Your task to perform on an android device: Find coffee shops on Maps Image 0: 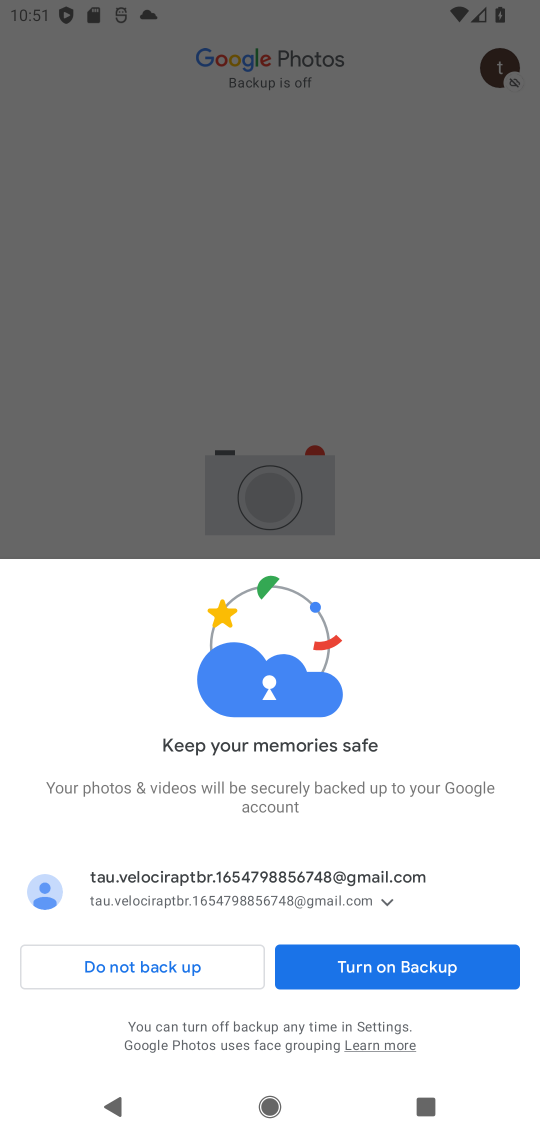
Step 0: press home button
Your task to perform on an android device: Find coffee shops on Maps Image 1: 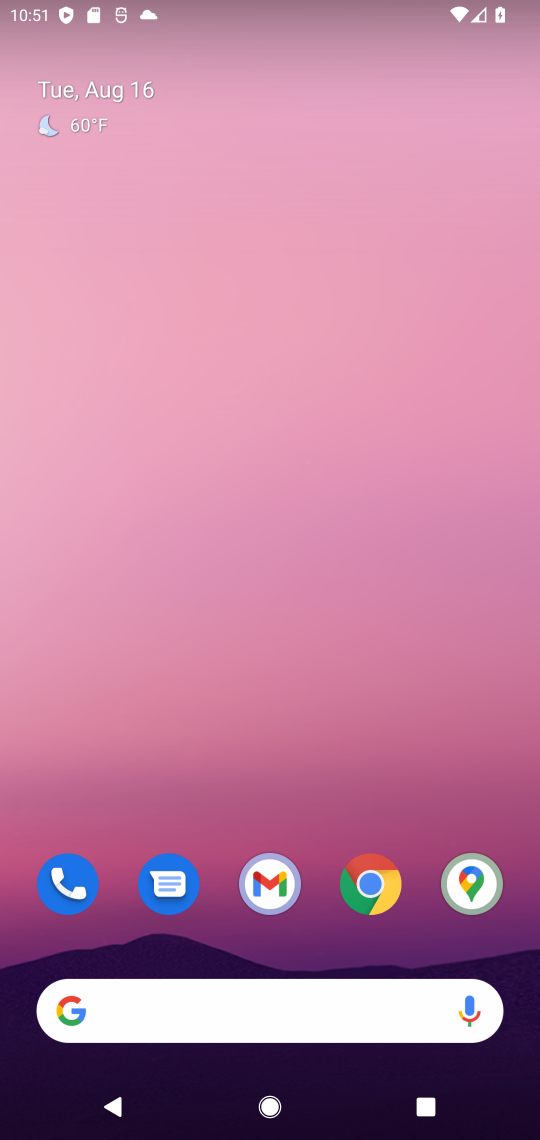
Step 1: press home button
Your task to perform on an android device: Find coffee shops on Maps Image 2: 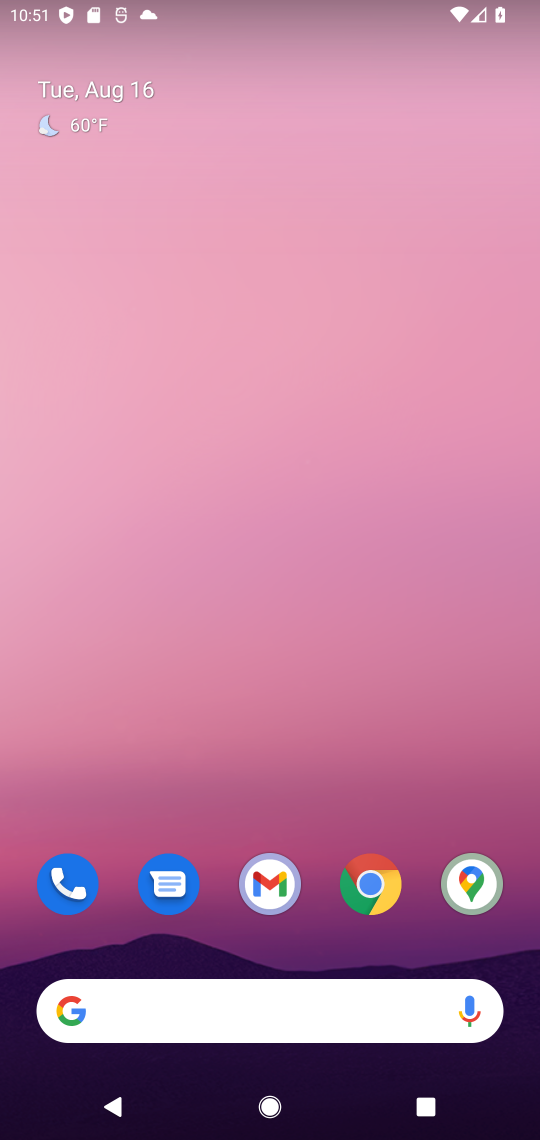
Step 2: click (465, 886)
Your task to perform on an android device: Find coffee shops on Maps Image 3: 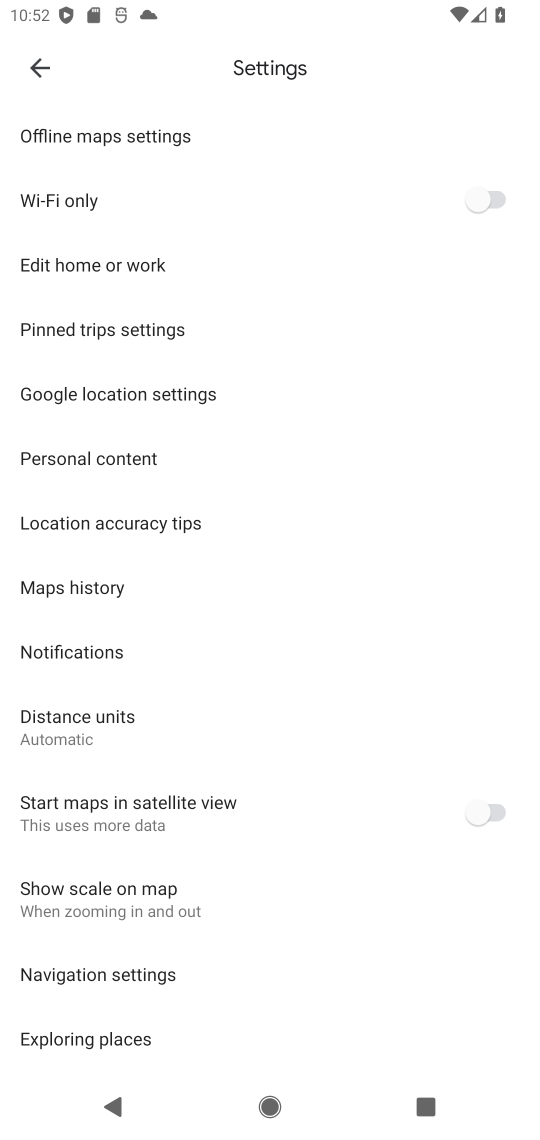
Step 3: press home button
Your task to perform on an android device: Find coffee shops on Maps Image 4: 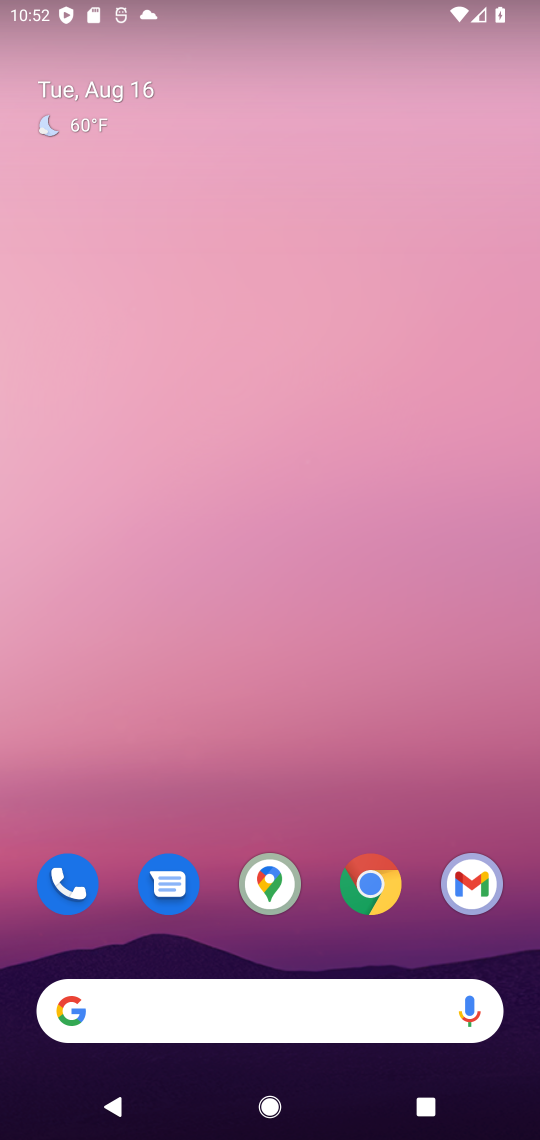
Step 4: click (255, 879)
Your task to perform on an android device: Find coffee shops on Maps Image 5: 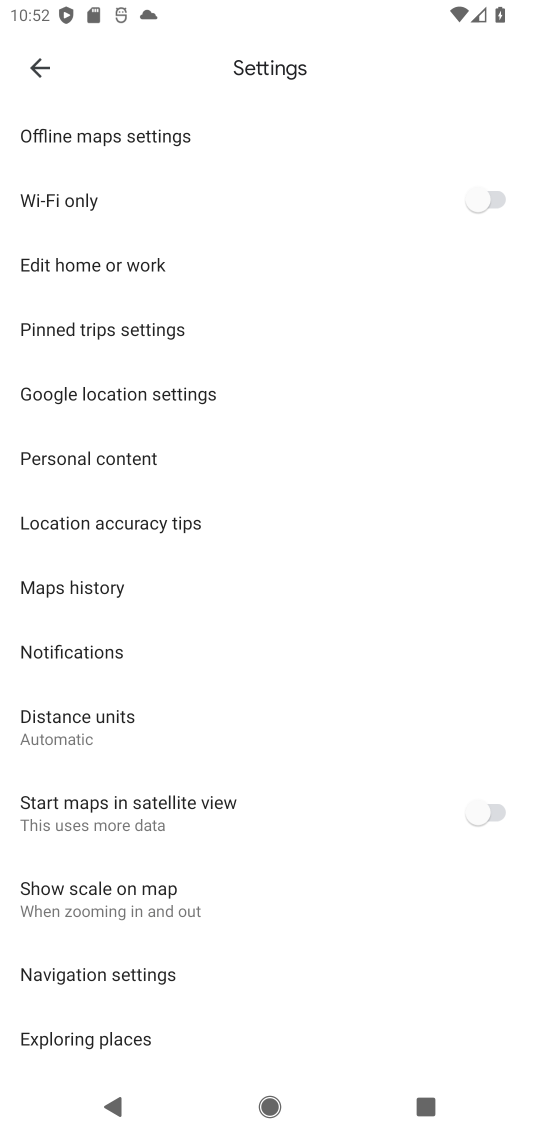
Step 5: click (33, 75)
Your task to perform on an android device: Find coffee shops on Maps Image 6: 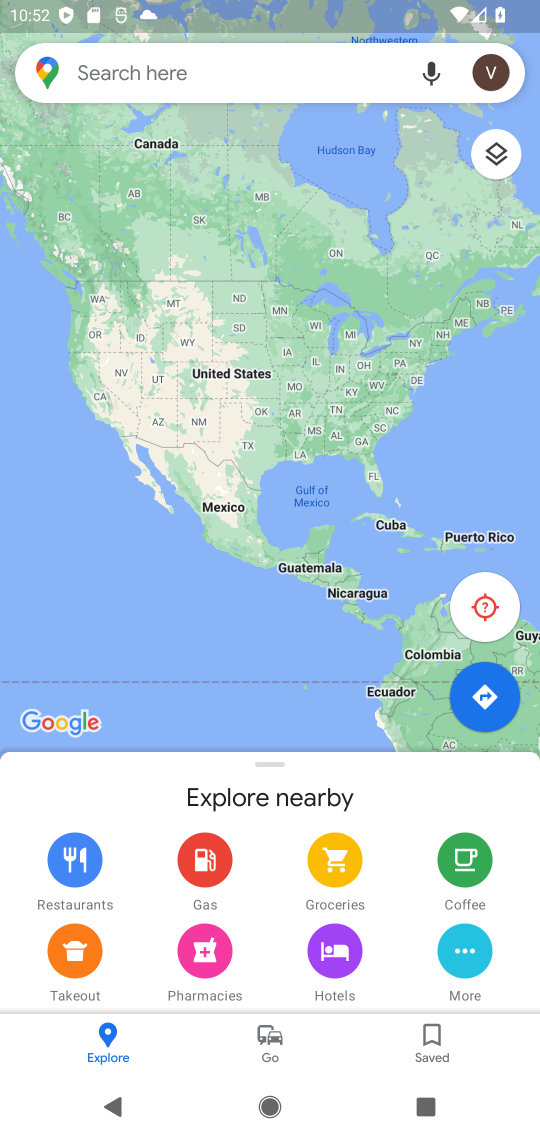
Step 6: click (165, 77)
Your task to perform on an android device: Find coffee shops on Maps Image 7: 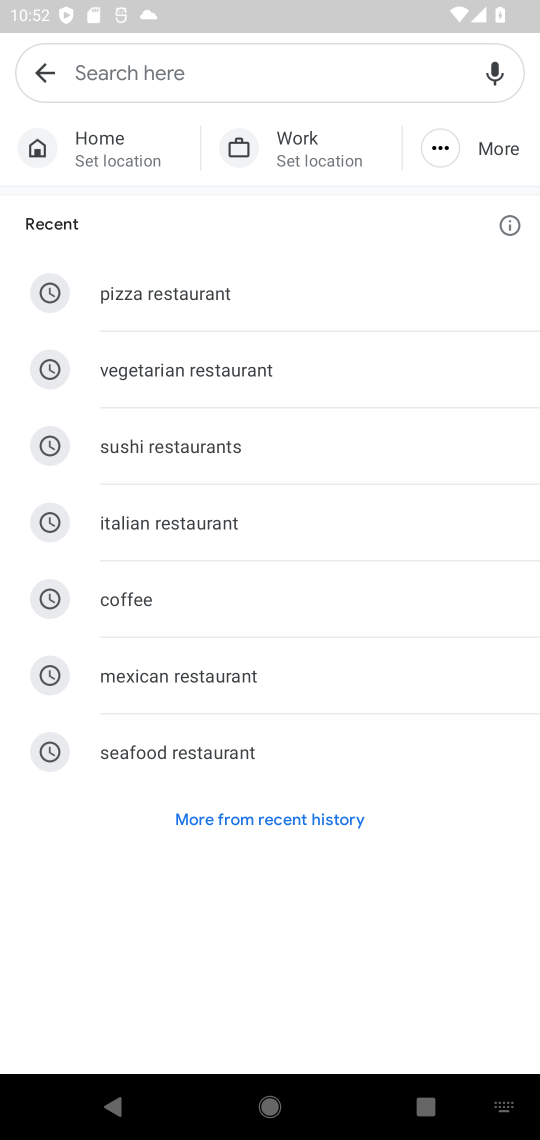
Step 7: type "coffee shops"
Your task to perform on an android device: Find coffee shops on Maps Image 8: 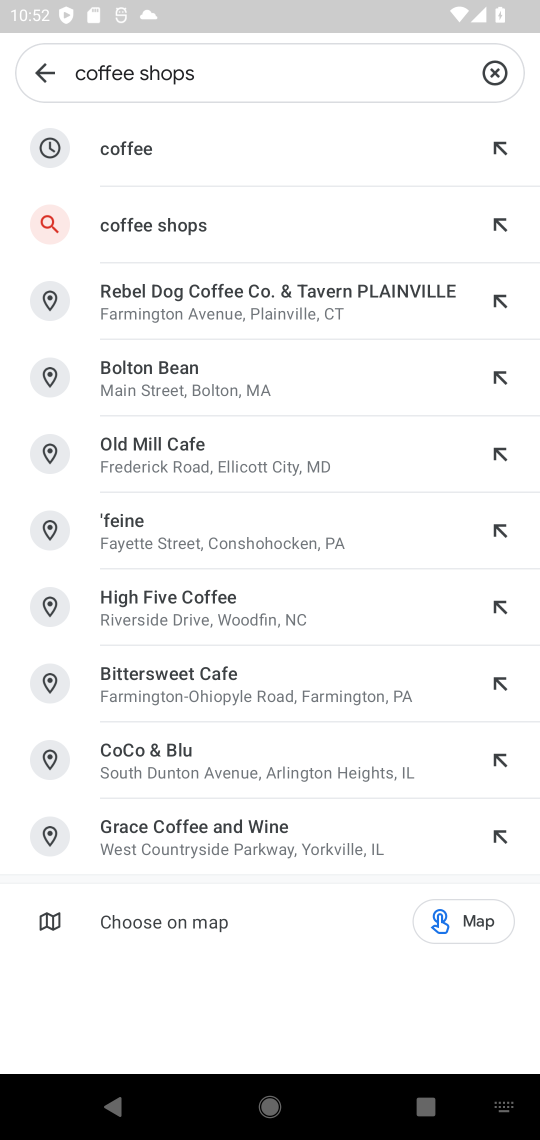
Step 8: click (185, 236)
Your task to perform on an android device: Find coffee shops on Maps Image 9: 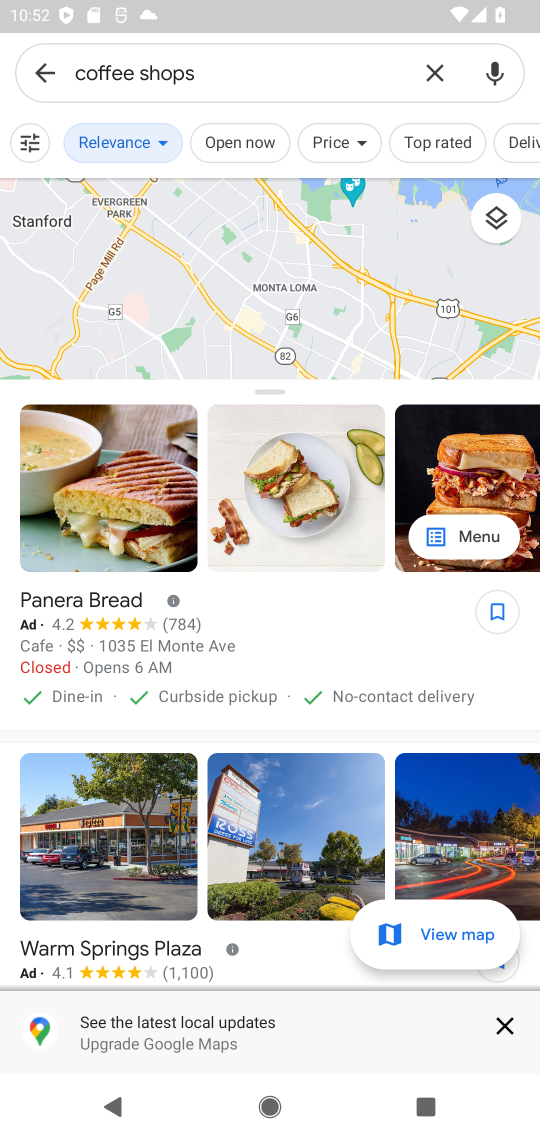
Step 9: task complete